Your task to perform on an android device: change notification settings in the gmail app Image 0: 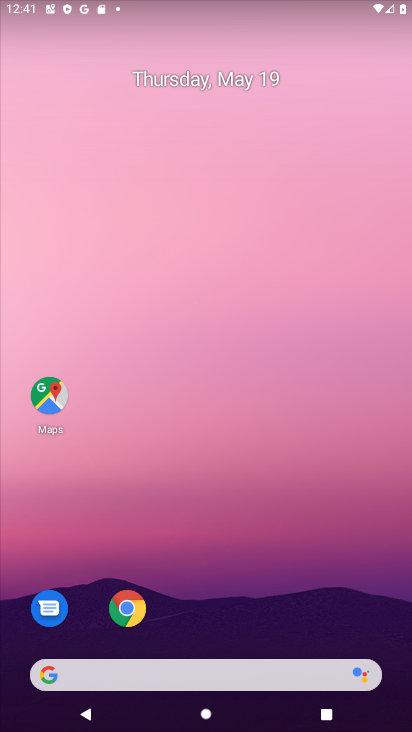
Step 0: drag from (212, 620) to (260, 152)
Your task to perform on an android device: change notification settings in the gmail app Image 1: 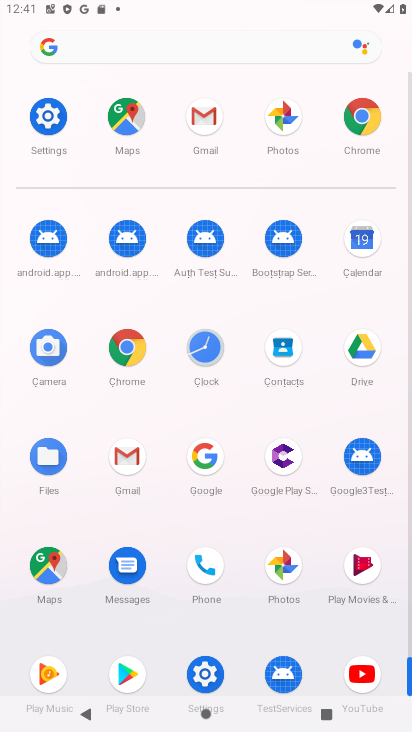
Step 1: click (124, 458)
Your task to perform on an android device: change notification settings in the gmail app Image 2: 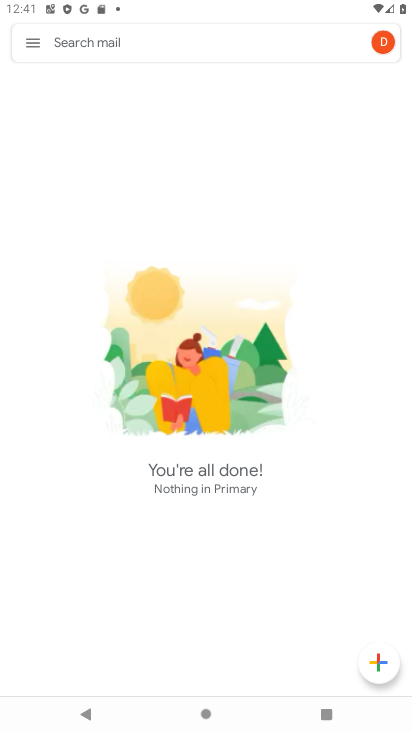
Step 2: click (33, 36)
Your task to perform on an android device: change notification settings in the gmail app Image 3: 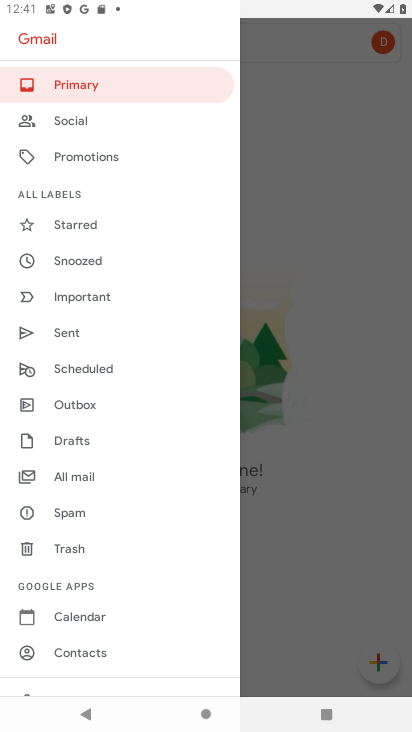
Step 3: drag from (104, 623) to (149, 354)
Your task to perform on an android device: change notification settings in the gmail app Image 4: 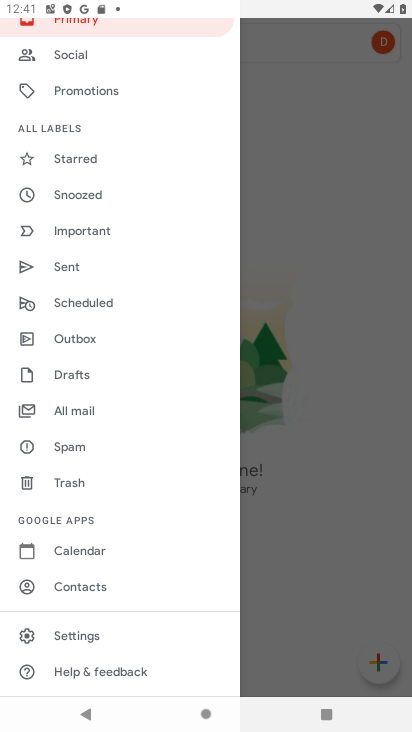
Step 4: click (74, 639)
Your task to perform on an android device: change notification settings in the gmail app Image 5: 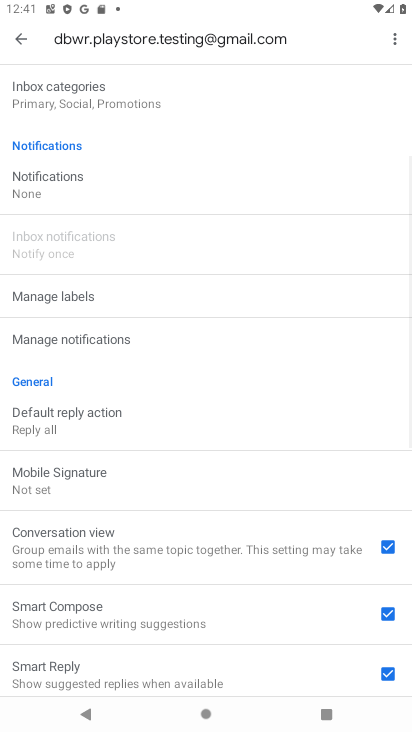
Step 5: click (85, 166)
Your task to perform on an android device: change notification settings in the gmail app Image 6: 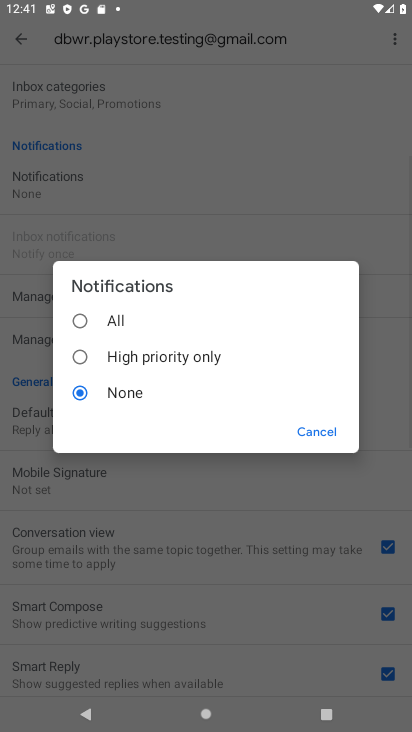
Step 6: click (127, 322)
Your task to perform on an android device: change notification settings in the gmail app Image 7: 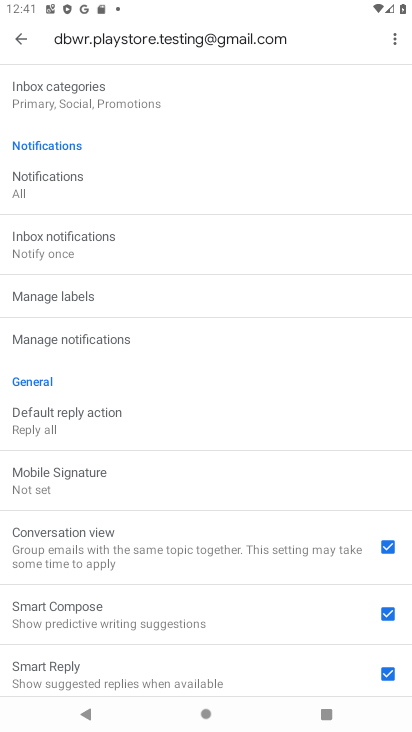
Step 7: task complete